Your task to perform on an android device: turn off translation in the chrome app Image 0: 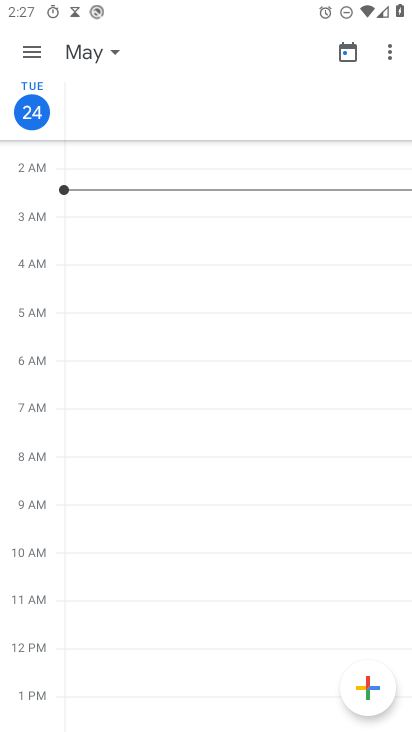
Step 0: press home button
Your task to perform on an android device: turn off translation in the chrome app Image 1: 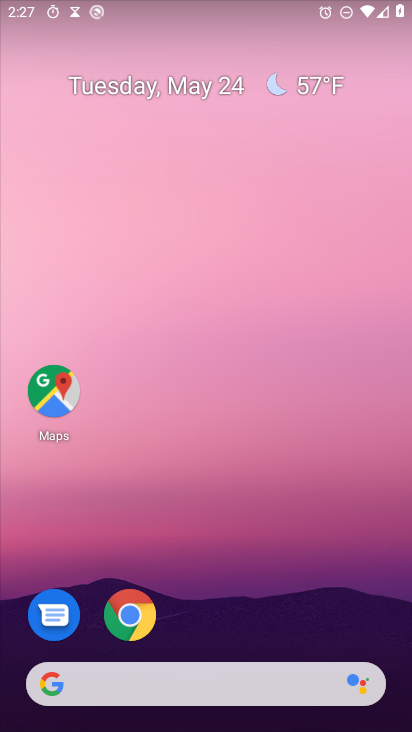
Step 1: drag from (212, 589) to (184, 237)
Your task to perform on an android device: turn off translation in the chrome app Image 2: 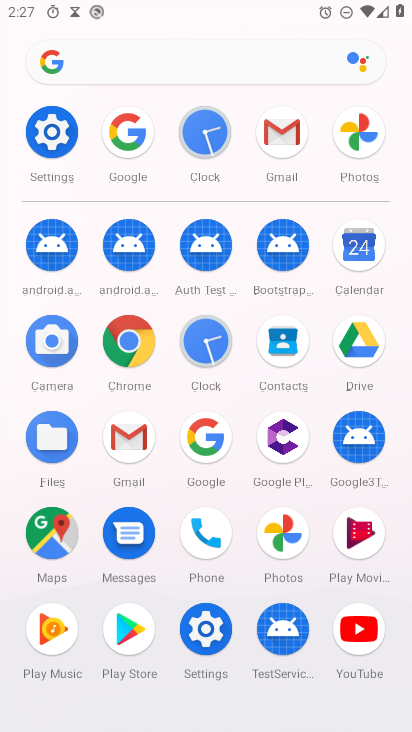
Step 2: click (123, 347)
Your task to perform on an android device: turn off translation in the chrome app Image 3: 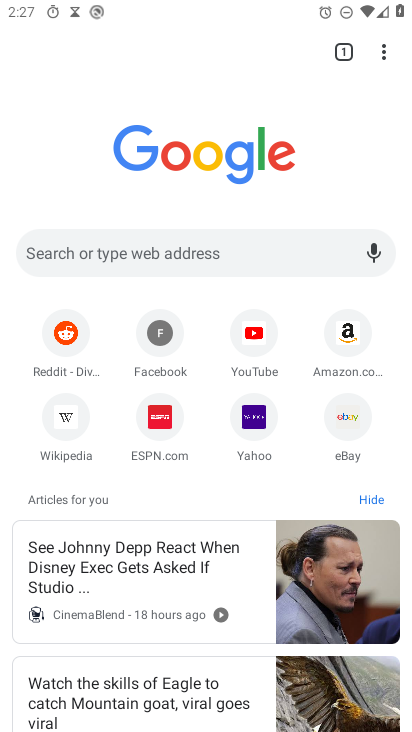
Step 3: click (387, 55)
Your task to perform on an android device: turn off translation in the chrome app Image 4: 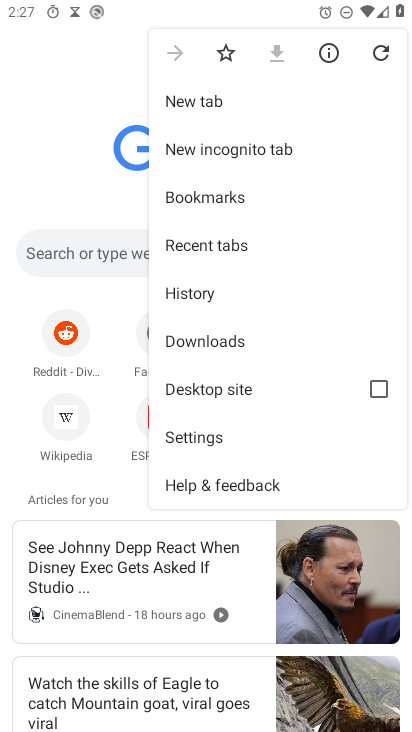
Step 4: click (201, 434)
Your task to perform on an android device: turn off translation in the chrome app Image 5: 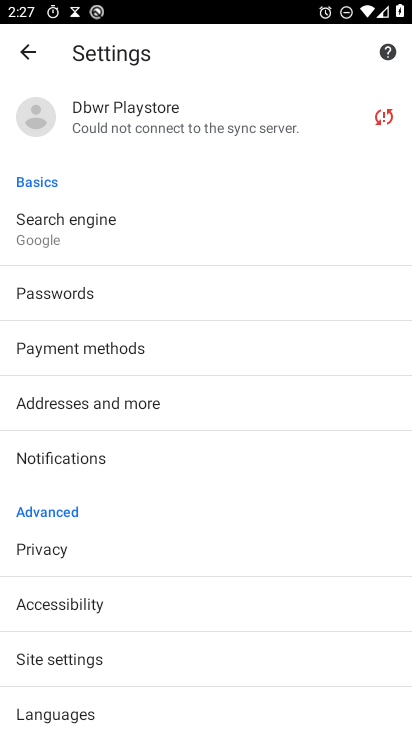
Step 5: click (82, 656)
Your task to perform on an android device: turn off translation in the chrome app Image 6: 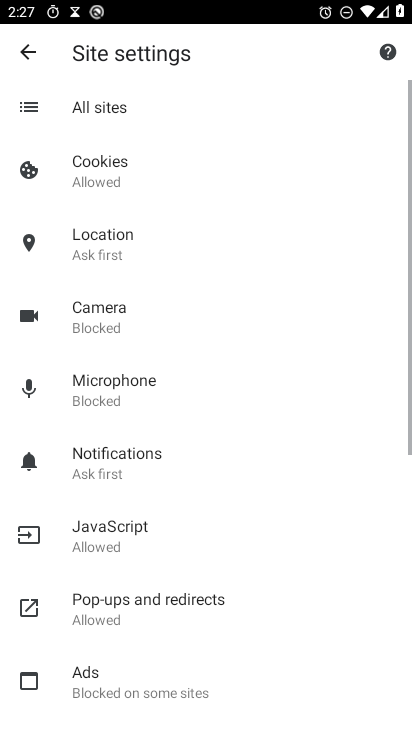
Step 6: drag from (84, 674) to (97, 348)
Your task to perform on an android device: turn off translation in the chrome app Image 7: 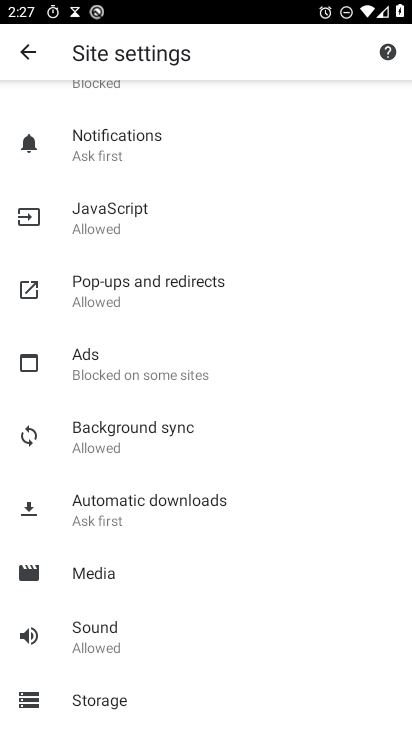
Step 7: click (17, 56)
Your task to perform on an android device: turn off translation in the chrome app Image 8: 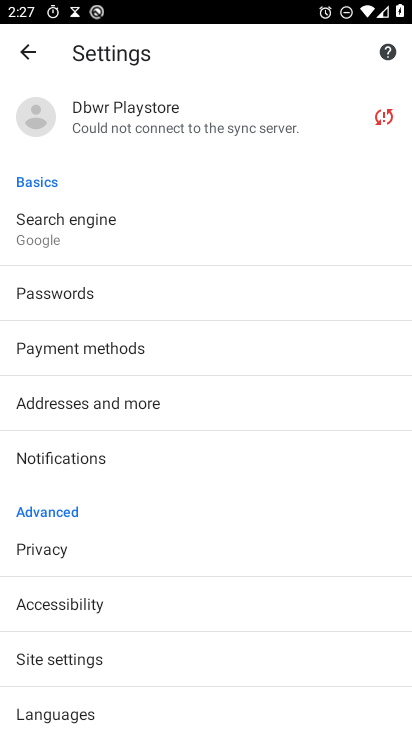
Step 8: click (92, 696)
Your task to perform on an android device: turn off translation in the chrome app Image 9: 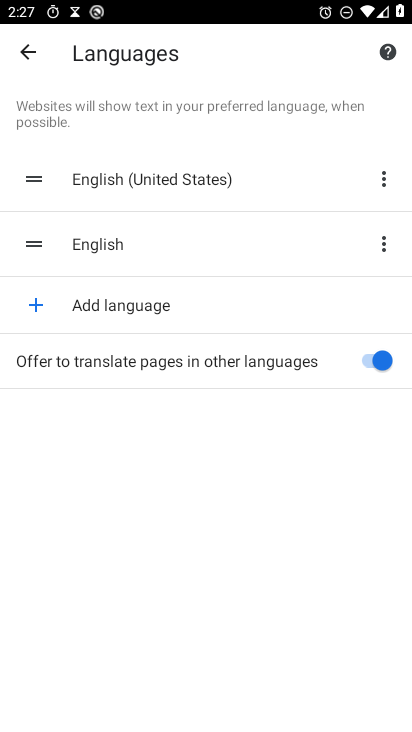
Step 9: click (376, 355)
Your task to perform on an android device: turn off translation in the chrome app Image 10: 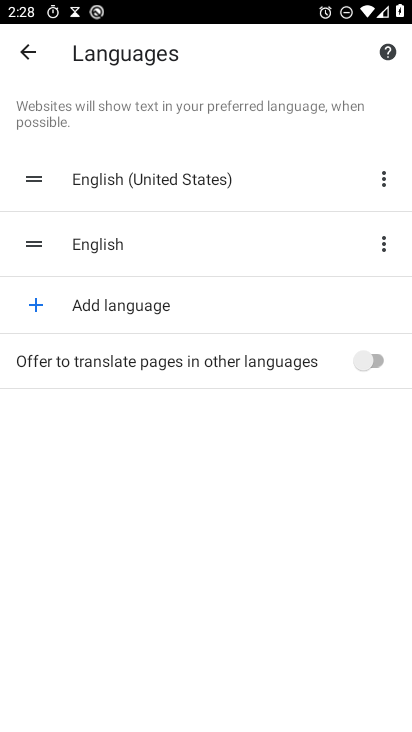
Step 10: task complete